Your task to perform on an android device: Open Wikipedia Image 0: 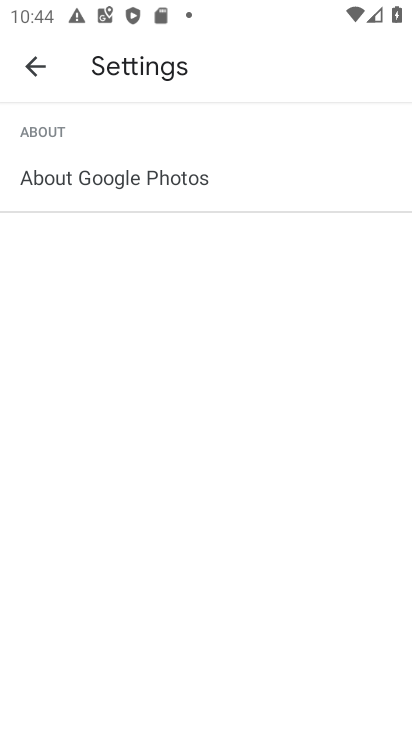
Step 0: press home button
Your task to perform on an android device: Open Wikipedia Image 1: 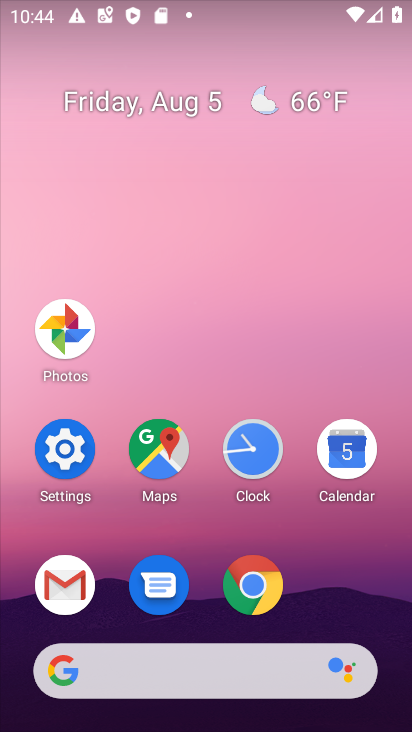
Step 1: click (251, 585)
Your task to perform on an android device: Open Wikipedia Image 2: 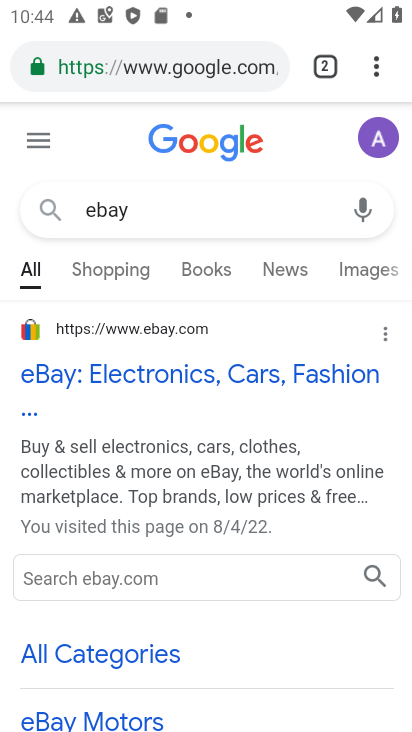
Step 2: click (378, 64)
Your task to perform on an android device: Open Wikipedia Image 3: 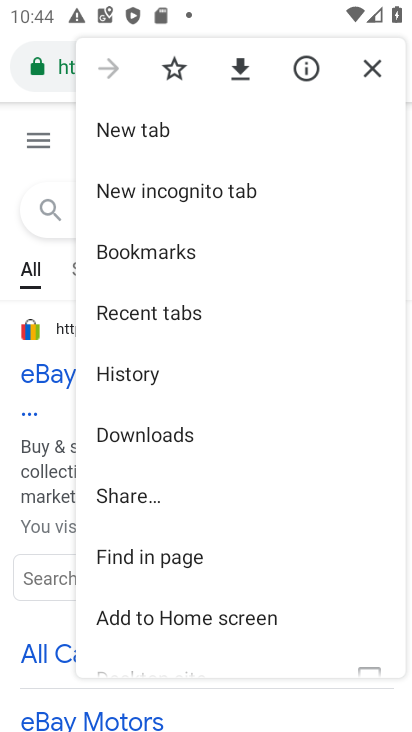
Step 3: click (146, 133)
Your task to perform on an android device: Open Wikipedia Image 4: 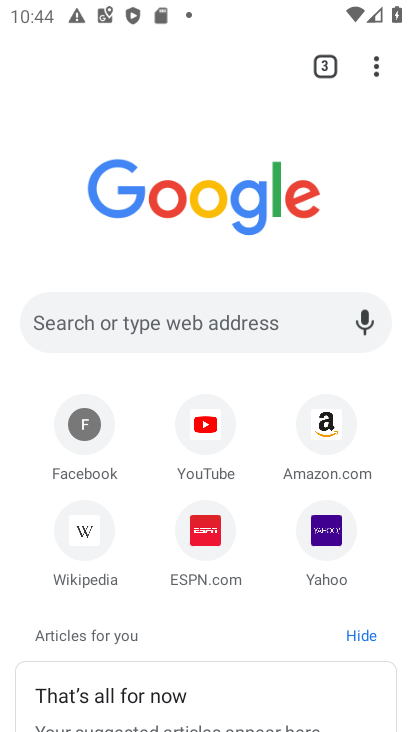
Step 4: click (83, 529)
Your task to perform on an android device: Open Wikipedia Image 5: 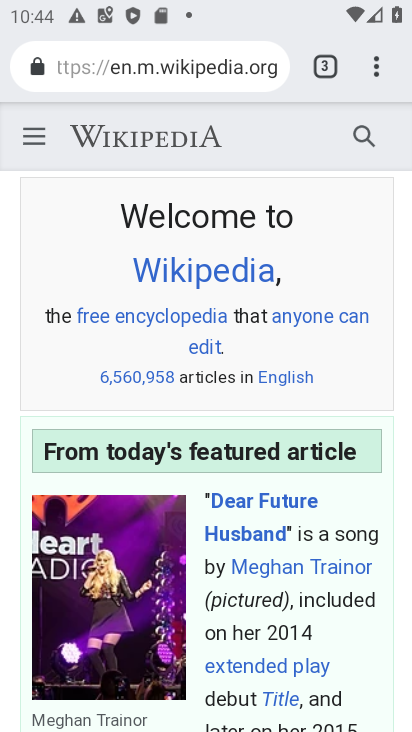
Step 5: task complete